Your task to perform on an android device: Open Android settings Image 0: 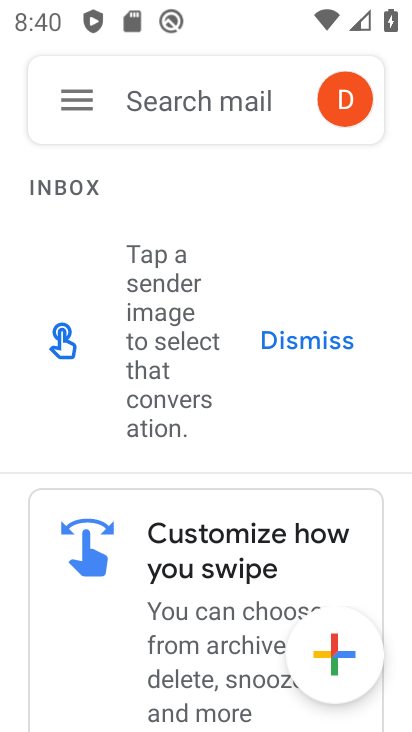
Step 0: press home button
Your task to perform on an android device: Open Android settings Image 1: 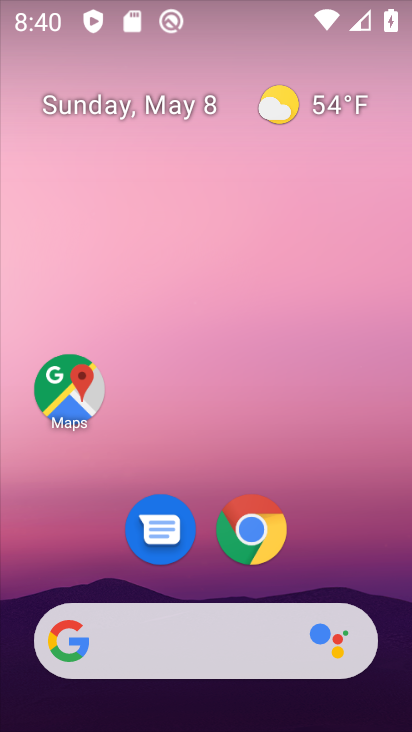
Step 1: drag from (383, 537) to (402, 43)
Your task to perform on an android device: Open Android settings Image 2: 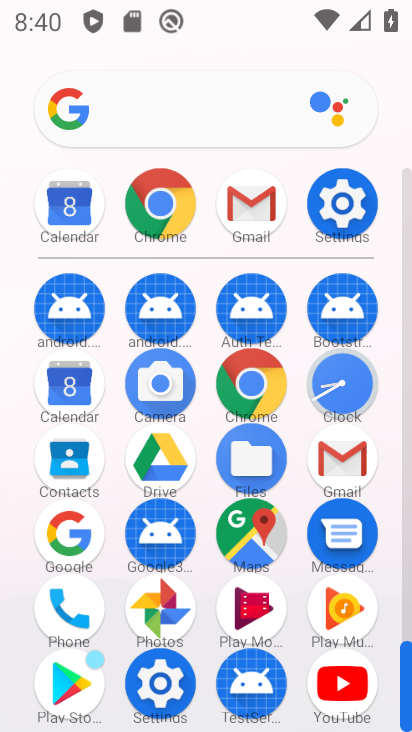
Step 2: click (350, 200)
Your task to perform on an android device: Open Android settings Image 3: 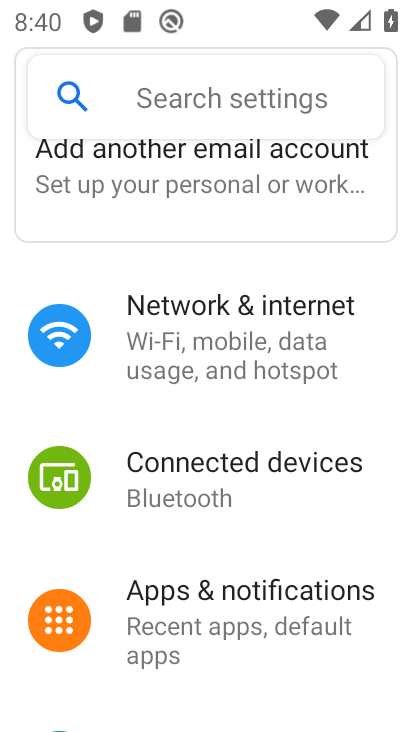
Step 3: task complete